Your task to perform on an android device: turn off data saver in the chrome app Image 0: 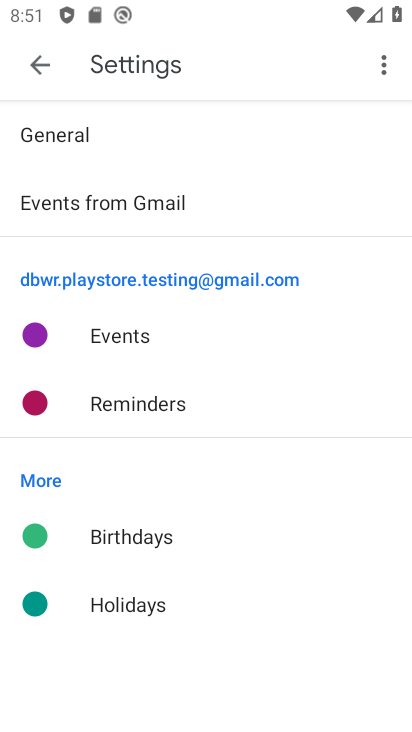
Step 0: press back button
Your task to perform on an android device: turn off data saver in the chrome app Image 1: 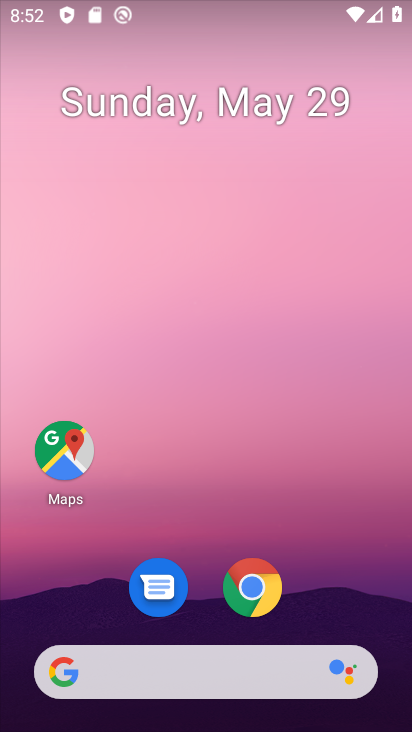
Step 1: click (259, 590)
Your task to perform on an android device: turn off data saver in the chrome app Image 2: 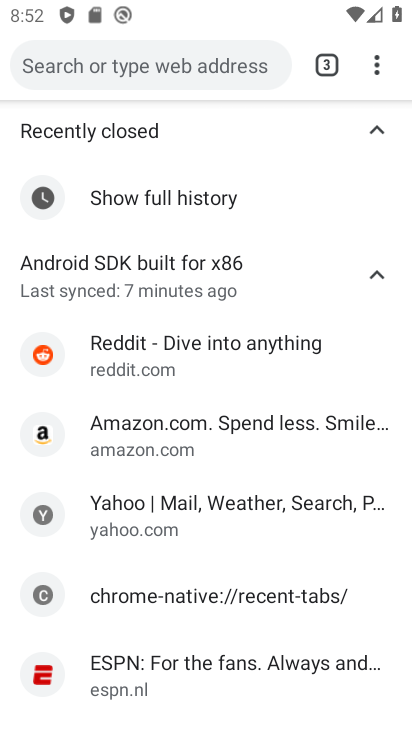
Step 2: drag from (374, 67) to (174, 539)
Your task to perform on an android device: turn off data saver in the chrome app Image 3: 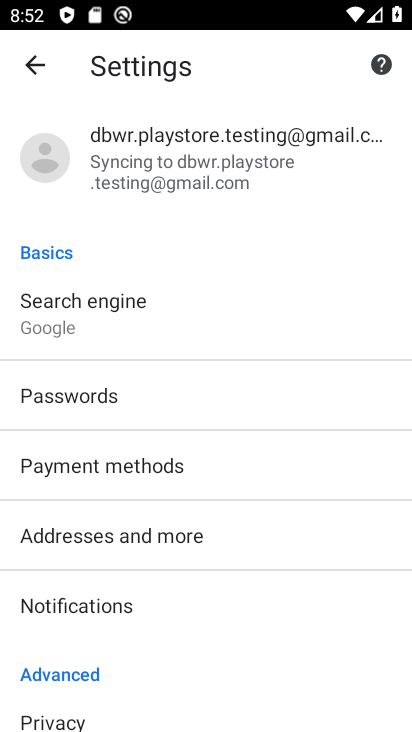
Step 3: drag from (163, 685) to (232, 155)
Your task to perform on an android device: turn off data saver in the chrome app Image 4: 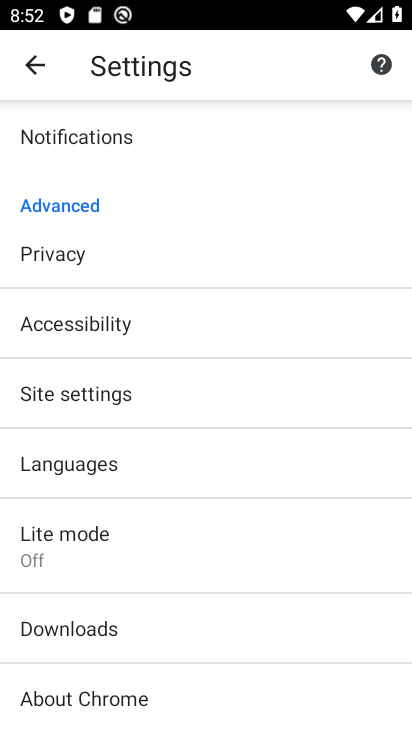
Step 4: click (120, 547)
Your task to perform on an android device: turn off data saver in the chrome app Image 5: 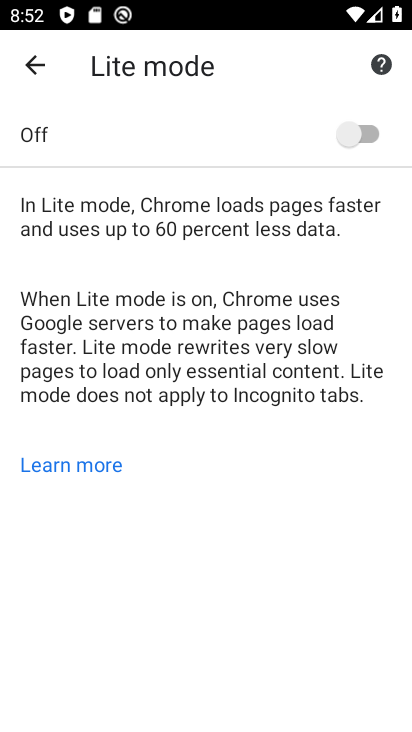
Step 5: task complete